Your task to perform on an android device: toggle location history Image 0: 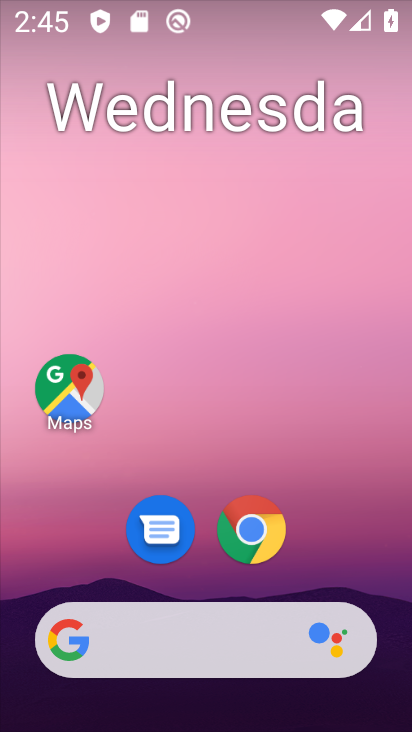
Step 0: drag from (322, 519) to (410, 161)
Your task to perform on an android device: toggle location history Image 1: 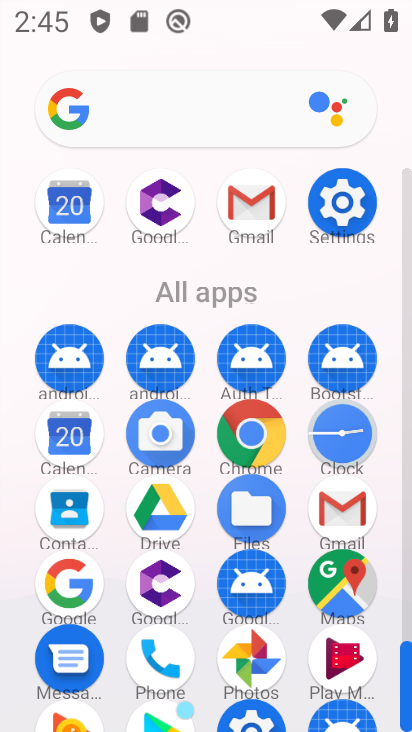
Step 1: click (342, 188)
Your task to perform on an android device: toggle location history Image 2: 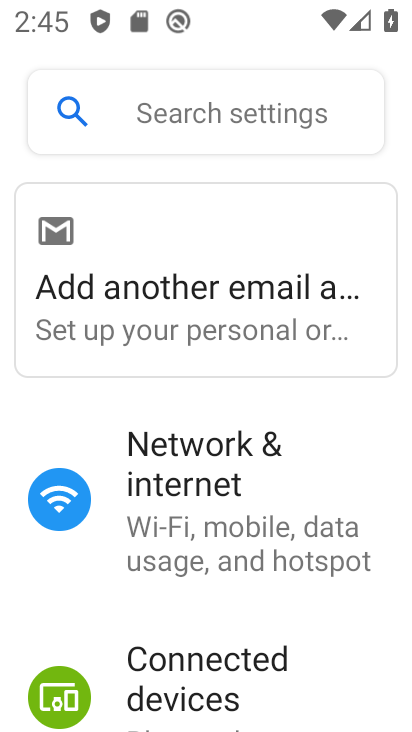
Step 2: drag from (202, 535) to (226, 376)
Your task to perform on an android device: toggle location history Image 3: 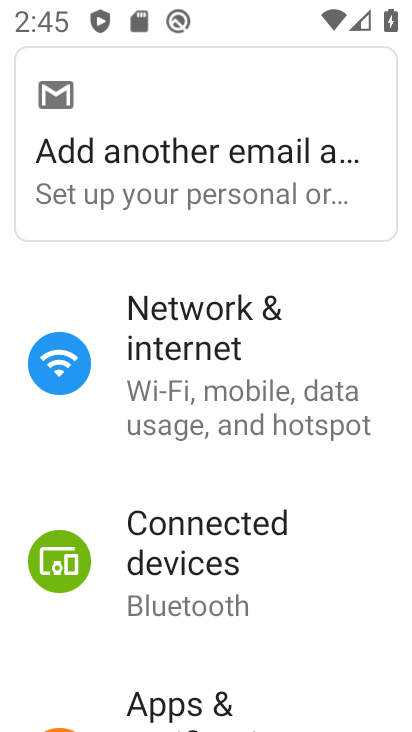
Step 3: drag from (219, 486) to (223, 378)
Your task to perform on an android device: toggle location history Image 4: 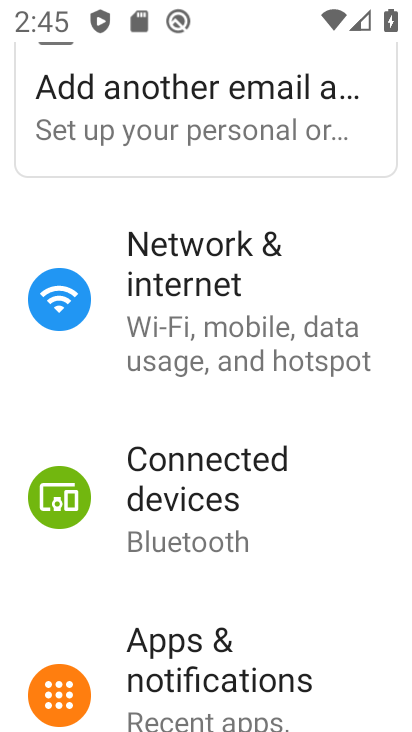
Step 4: drag from (218, 439) to (251, 365)
Your task to perform on an android device: toggle location history Image 5: 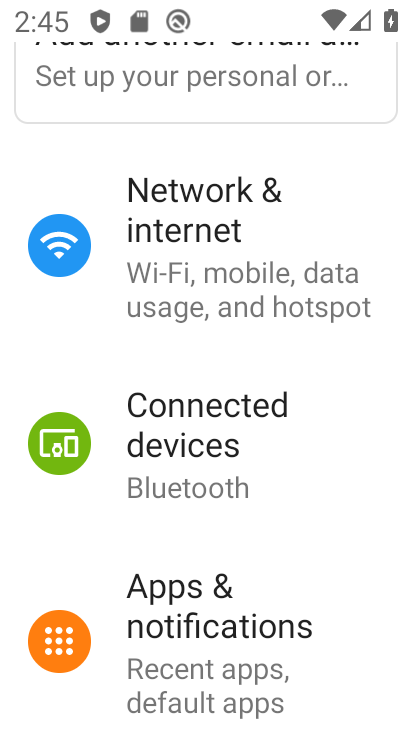
Step 5: drag from (211, 479) to (257, 380)
Your task to perform on an android device: toggle location history Image 6: 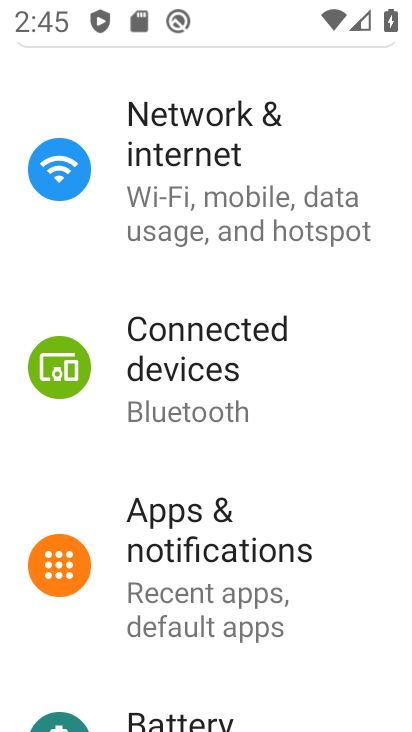
Step 6: drag from (175, 534) to (221, 423)
Your task to perform on an android device: toggle location history Image 7: 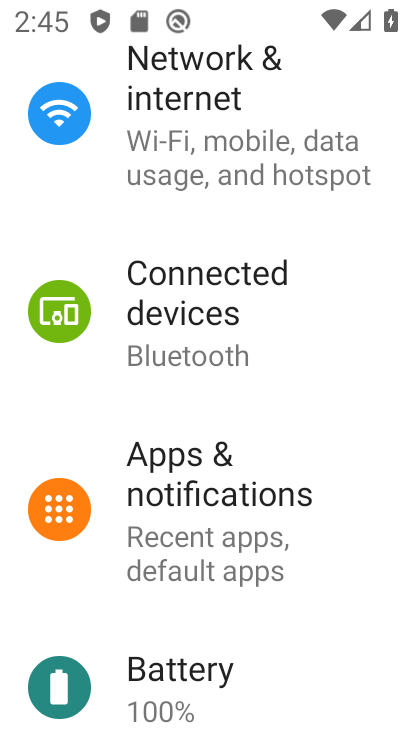
Step 7: drag from (208, 510) to (260, 384)
Your task to perform on an android device: toggle location history Image 8: 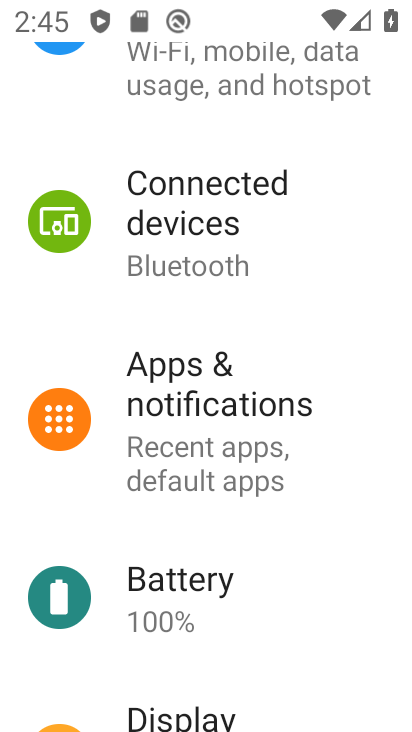
Step 8: drag from (232, 474) to (248, 396)
Your task to perform on an android device: toggle location history Image 9: 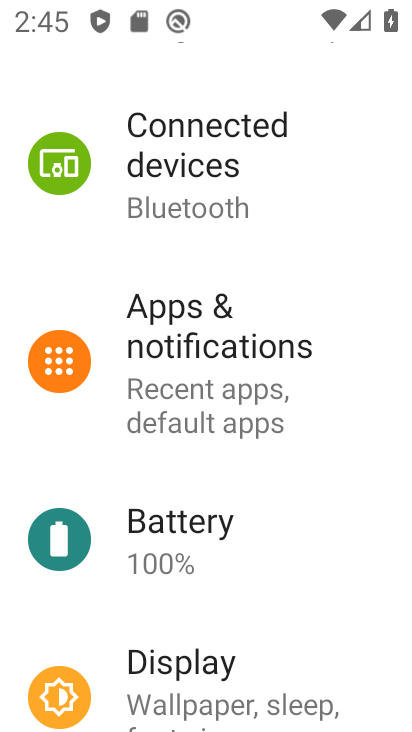
Step 9: drag from (217, 538) to (241, 454)
Your task to perform on an android device: toggle location history Image 10: 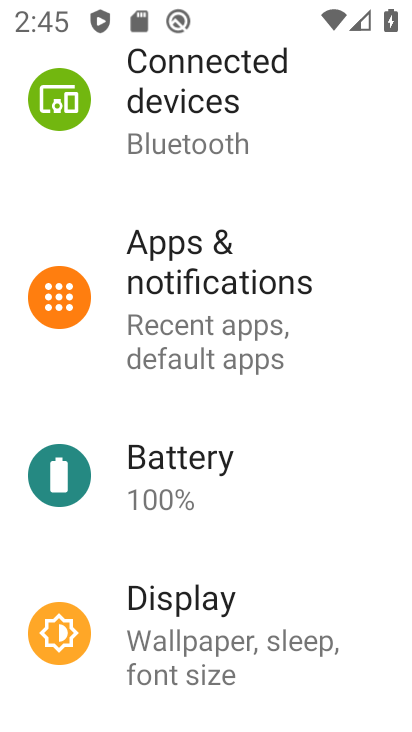
Step 10: drag from (192, 531) to (237, 414)
Your task to perform on an android device: toggle location history Image 11: 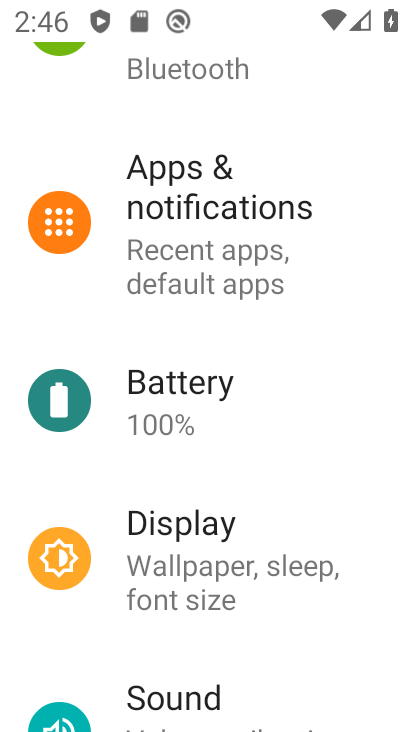
Step 11: drag from (197, 545) to (234, 433)
Your task to perform on an android device: toggle location history Image 12: 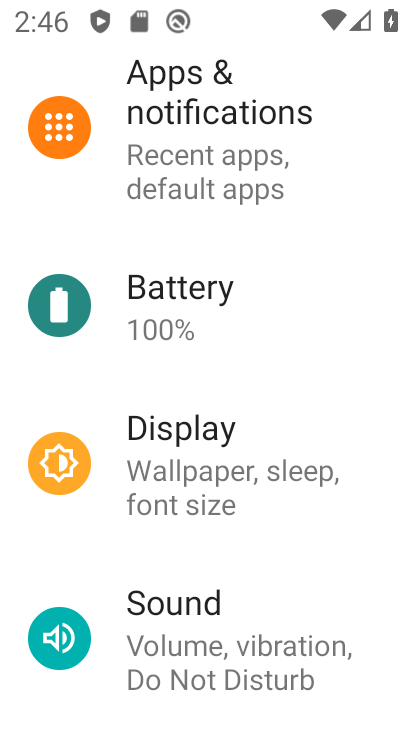
Step 12: drag from (224, 476) to (258, 397)
Your task to perform on an android device: toggle location history Image 13: 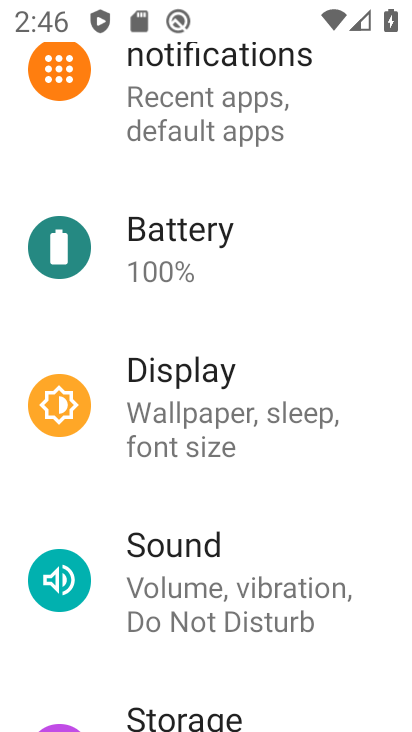
Step 13: drag from (222, 486) to (272, 366)
Your task to perform on an android device: toggle location history Image 14: 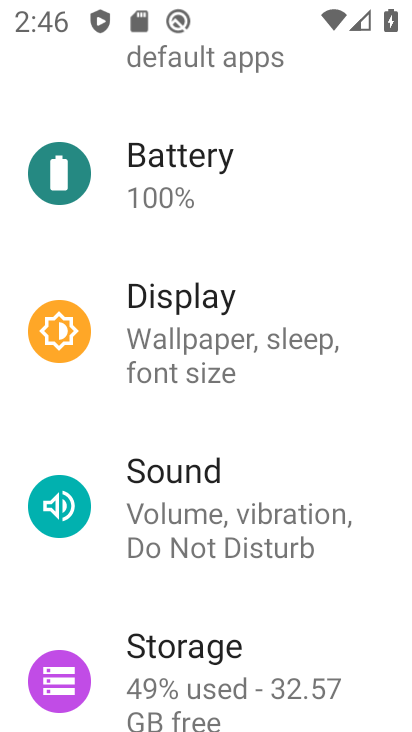
Step 14: drag from (212, 503) to (253, 360)
Your task to perform on an android device: toggle location history Image 15: 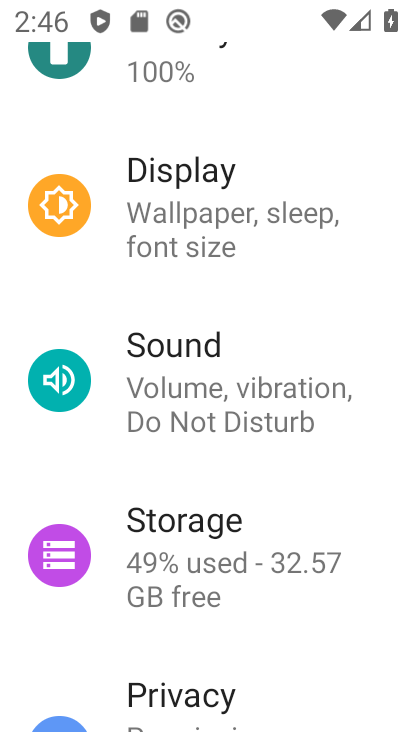
Step 15: drag from (215, 482) to (275, 333)
Your task to perform on an android device: toggle location history Image 16: 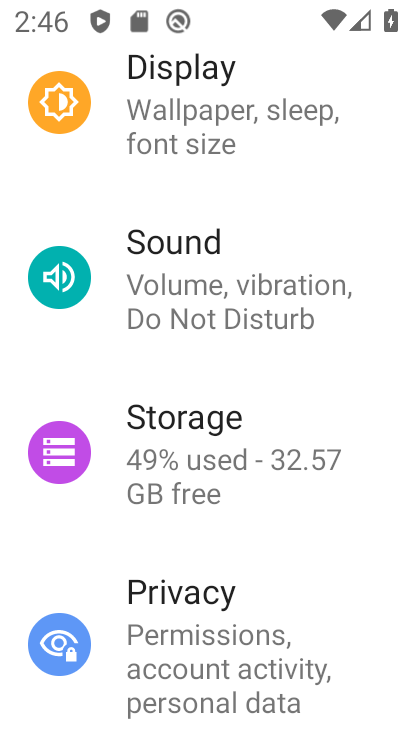
Step 16: drag from (237, 518) to (247, 422)
Your task to perform on an android device: toggle location history Image 17: 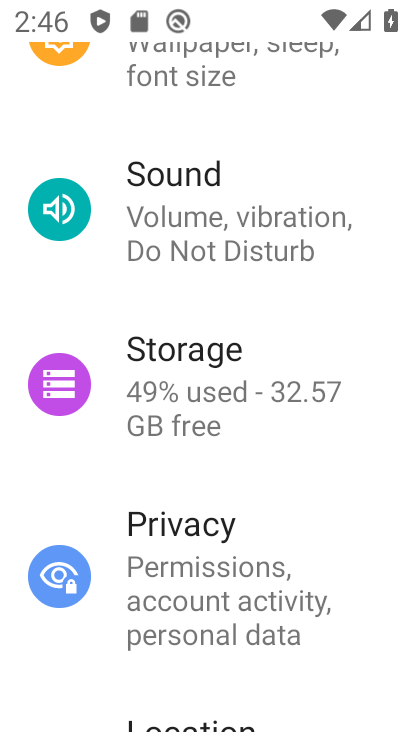
Step 17: drag from (173, 581) to (243, 430)
Your task to perform on an android device: toggle location history Image 18: 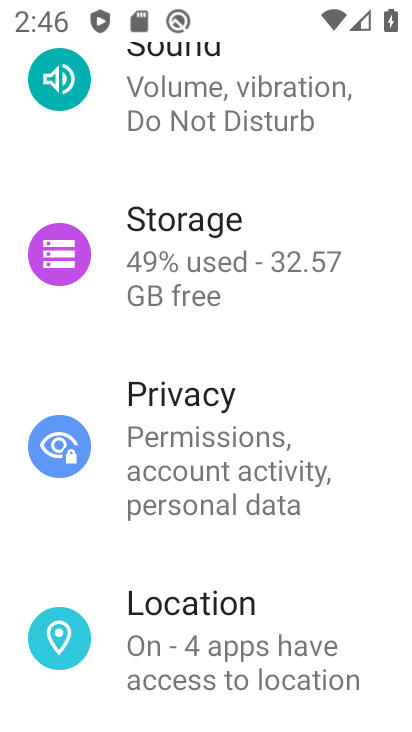
Step 18: click (167, 648)
Your task to perform on an android device: toggle location history Image 19: 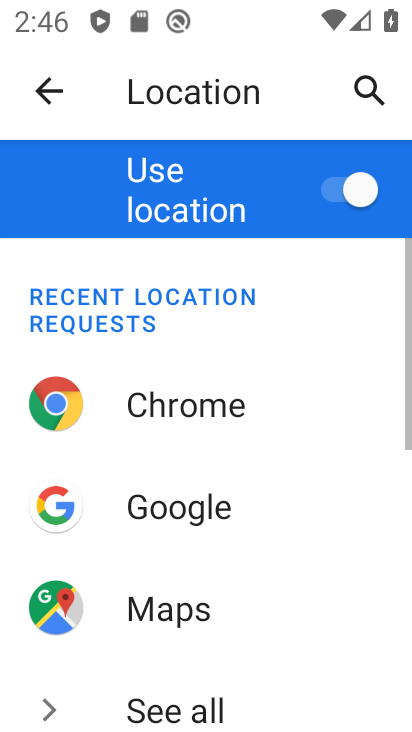
Step 19: drag from (224, 621) to (264, 361)
Your task to perform on an android device: toggle location history Image 20: 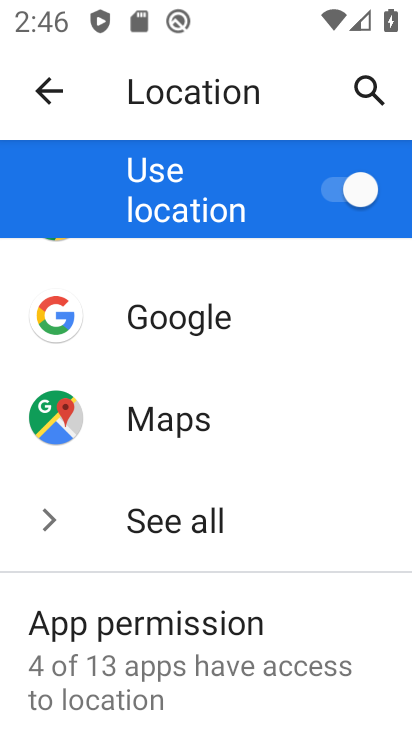
Step 20: drag from (227, 585) to (297, 357)
Your task to perform on an android device: toggle location history Image 21: 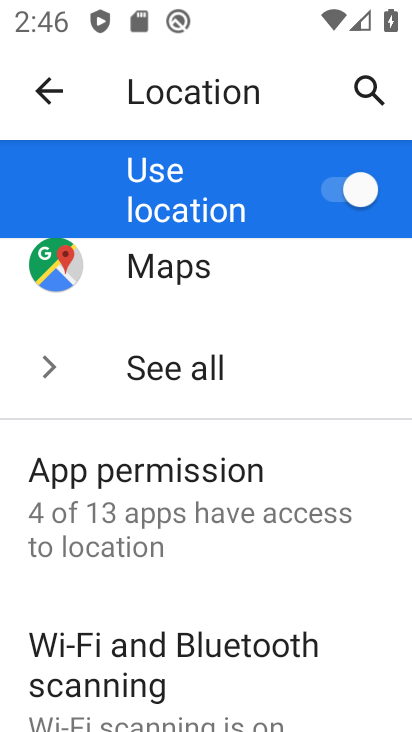
Step 21: drag from (192, 640) to (259, 363)
Your task to perform on an android device: toggle location history Image 22: 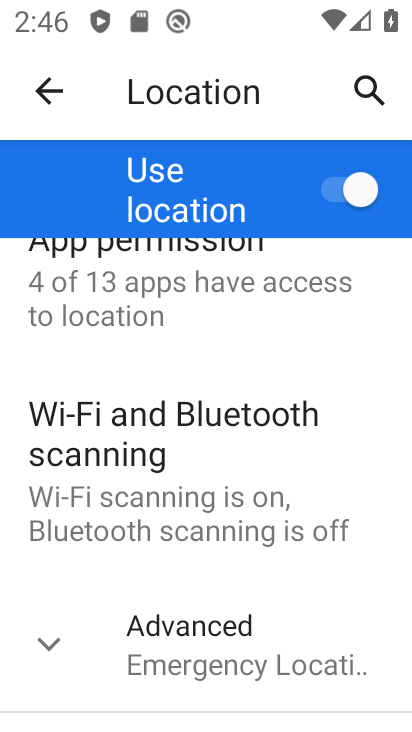
Step 22: click (183, 637)
Your task to perform on an android device: toggle location history Image 23: 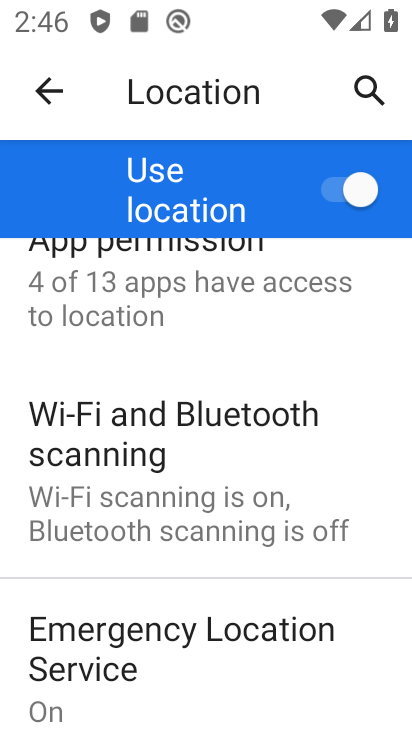
Step 23: drag from (157, 687) to (226, 404)
Your task to perform on an android device: toggle location history Image 24: 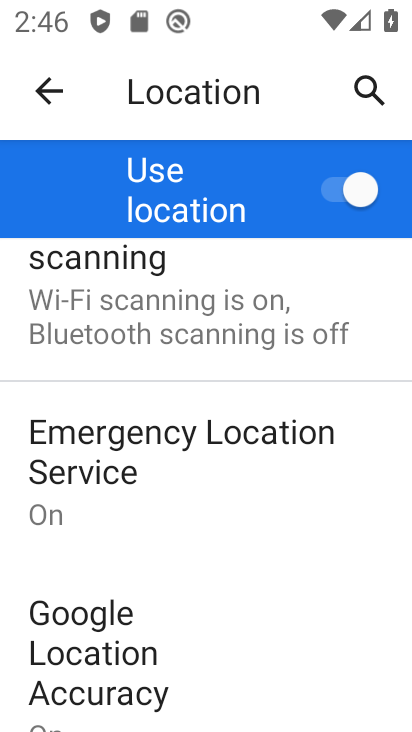
Step 24: drag from (152, 654) to (210, 367)
Your task to perform on an android device: toggle location history Image 25: 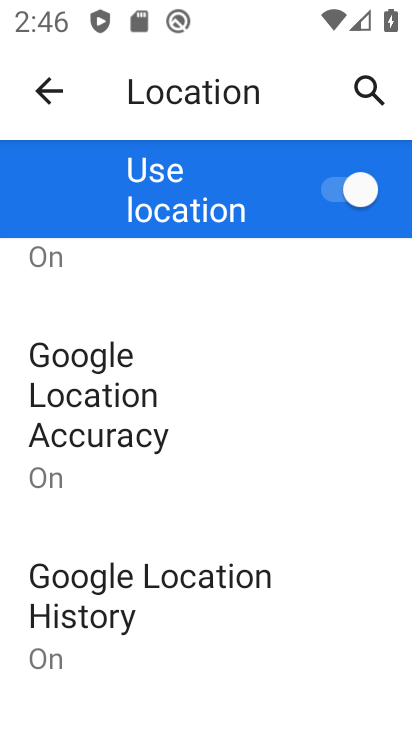
Step 25: click (112, 594)
Your task to perform on an android device: toggle location history Image 26: 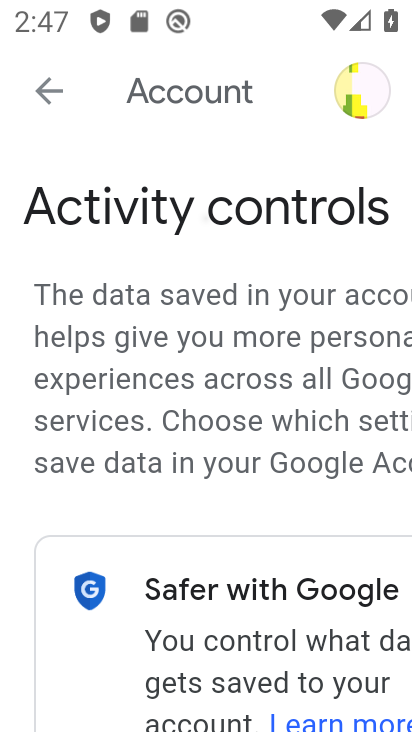
Step 26: drag from (172, 590) to (277, 163)
Your task to perform on an android device: toggle location history Image 27: 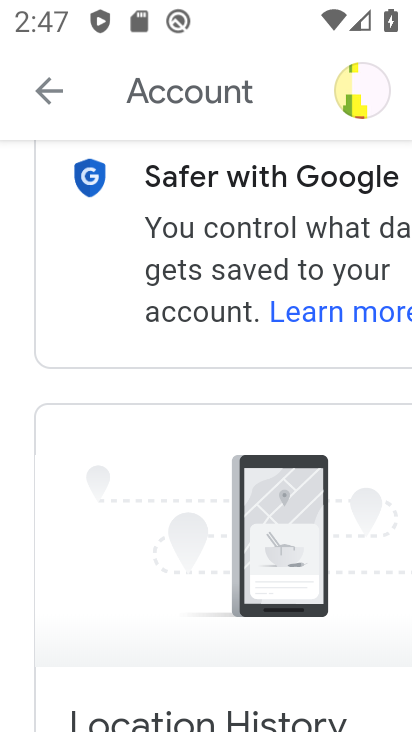
Step 27: drag from (262, 580) to (347, 221)
Your task to perform on an android device: toggle location history Image 28: 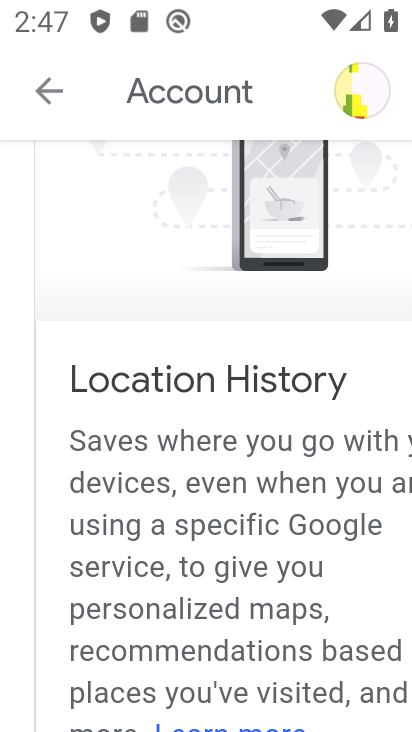
Step 28: drag from (259, 629) to (329, 268)
Your task to perform on an android device: toggle location history Image 29: 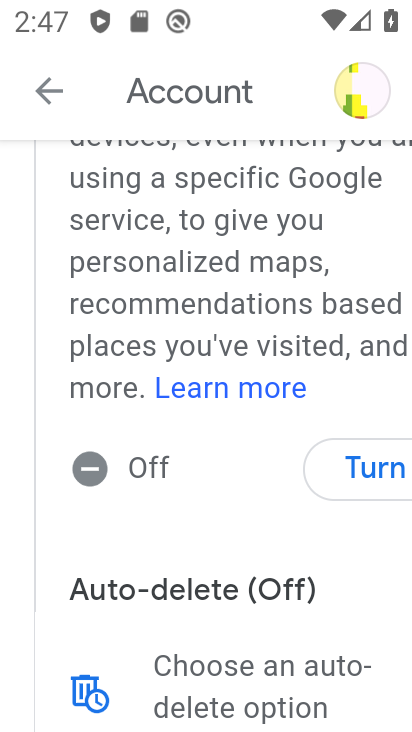
Step 29: click (356, 482)
Your task to perform on an android device: toggle location history Image 30: 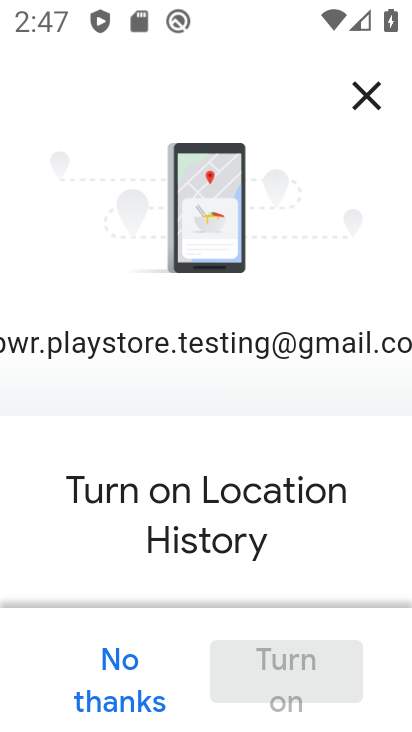
Step 30: drag from (317, 516) to (345, 204)
Your task to perform on an android device: toggle location history Image 31: 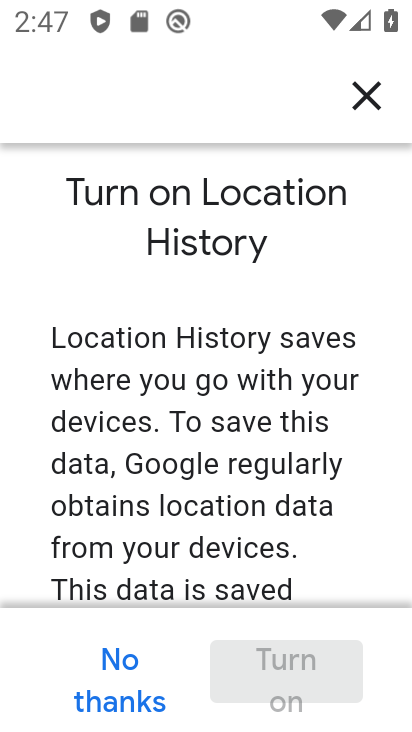
Step 31: drag from (261, 566) to (342, 230)
Your task to perform on an android device: toggle location history Image 32: 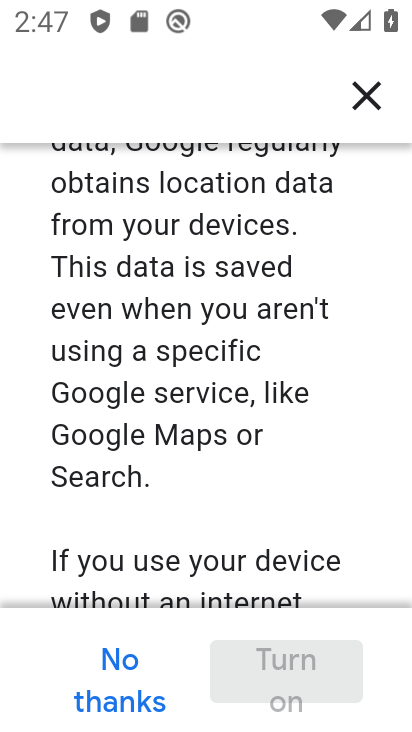
Step 32: drag from (277, 557) to (328, 229)
Your task to perform on an android device: toggle location history Image 33: 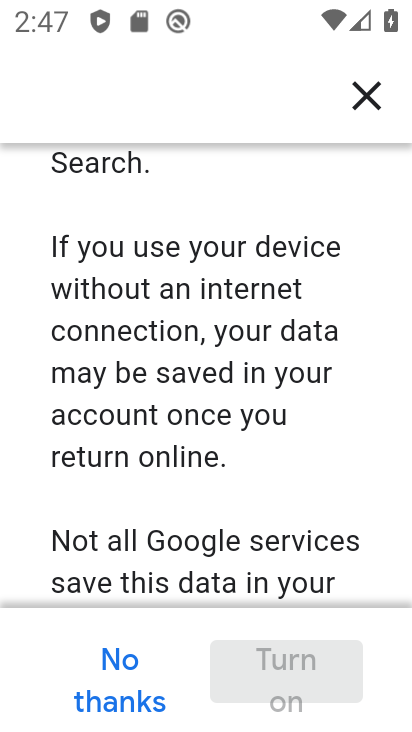
Step 33: drag from (247, 513) to (319, 257)
Your task to perform on an android device: toggle location history Image 34: 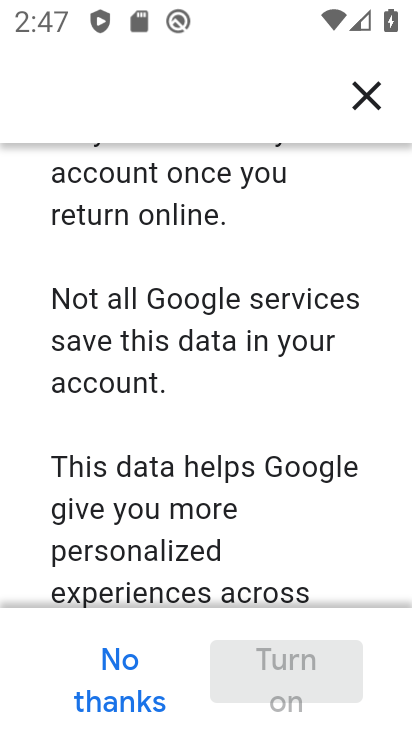
Step 34: drag from (299, 535) to (383, 255)
Your task to perform on an android device: toggle location history Image 35: 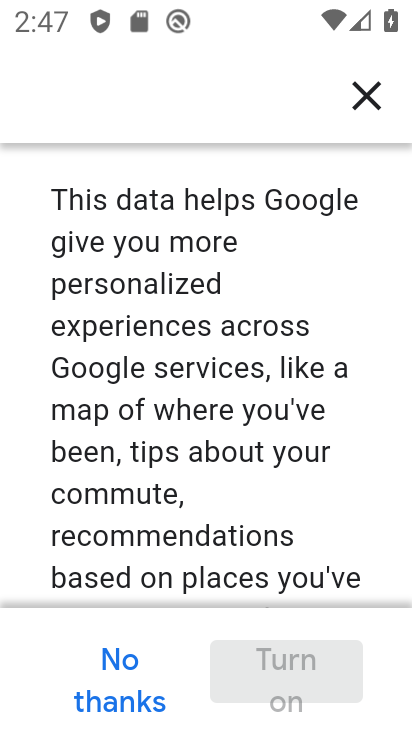
Step 35: drag from (314, 570) to (386, 345)
Your task to perform on an android device: toggle location history Image 36: 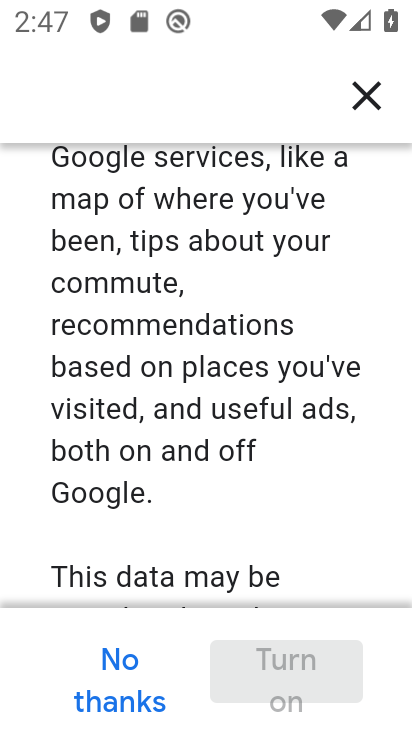
Step 36: drag from (320, 584) to (350, 331)
Your task to perform on an android device: toggle location history Image 37: 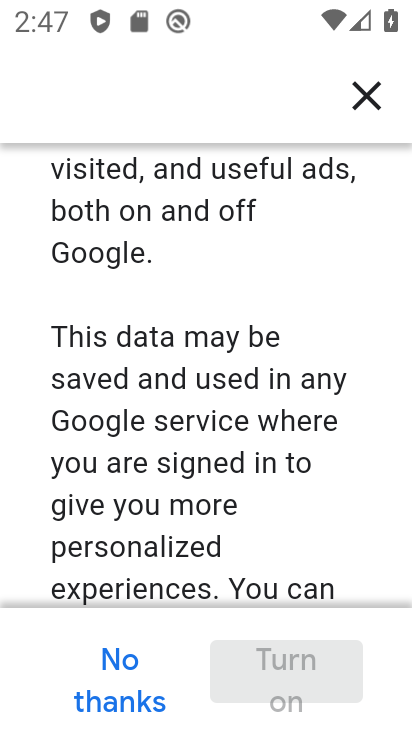
Step 37: drag from (289, 574) to (306, 326)
Your task to perform on an android device: toggle location history Image 38: 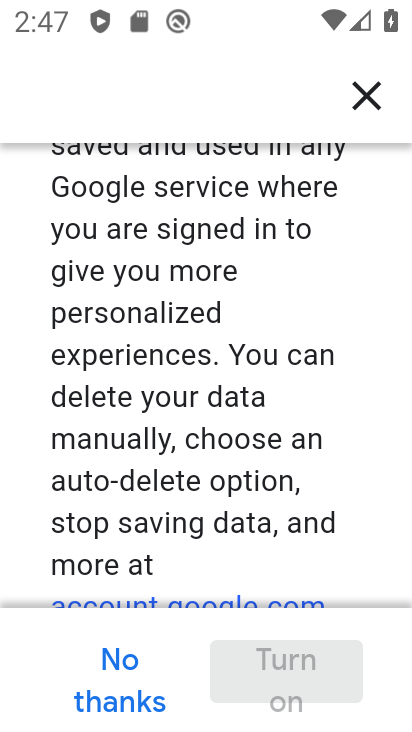
Step 38: drag from (236, 577) to (260, 306)
Your task to perform on an android device: toggle location history Image 39: 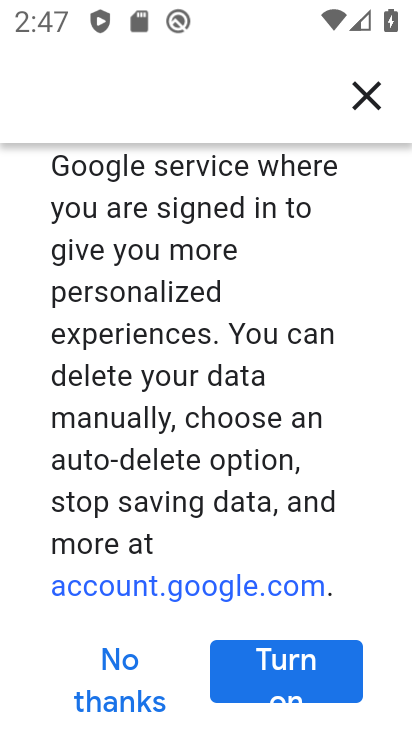
Step 39: click (258, 682)
Your task to perform on an android device: toggle location history Image 40: 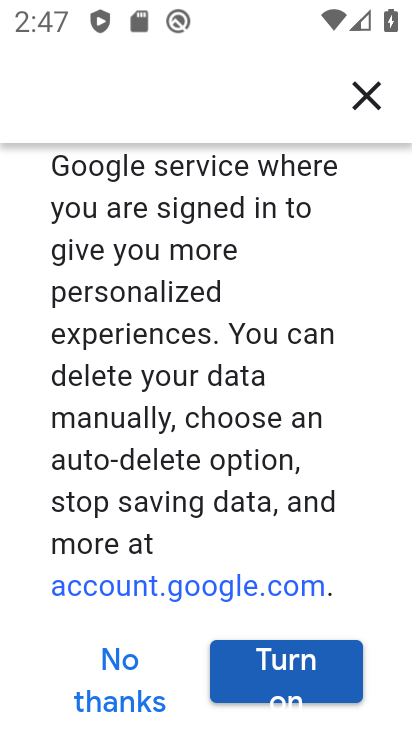
Step 40: click (283, 680)
Your task to perform on an android device: toggle location history Image 41: 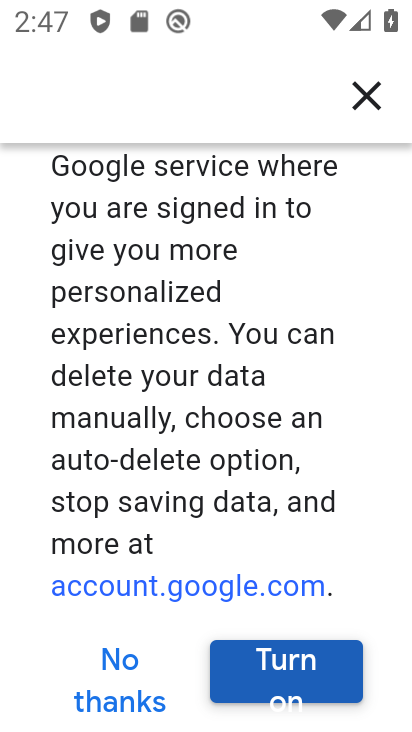
Step 41: click (285, 680)
Your task to perform on an android device: toggle location history Image 42: 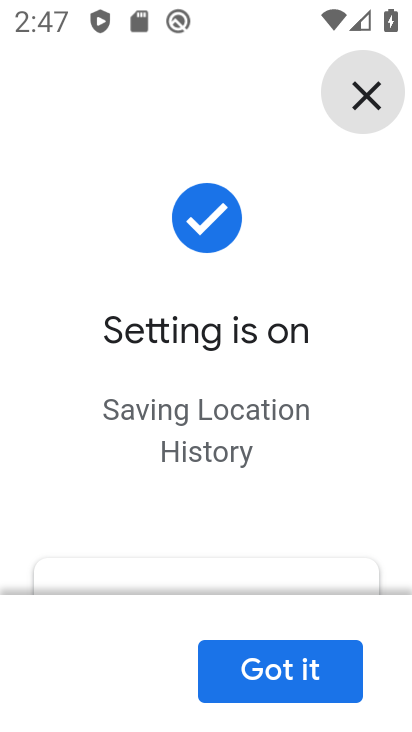
Step 42: task complete